Your task to perform on an android device: Search for seafood restaurants on Google Maps Image 0: 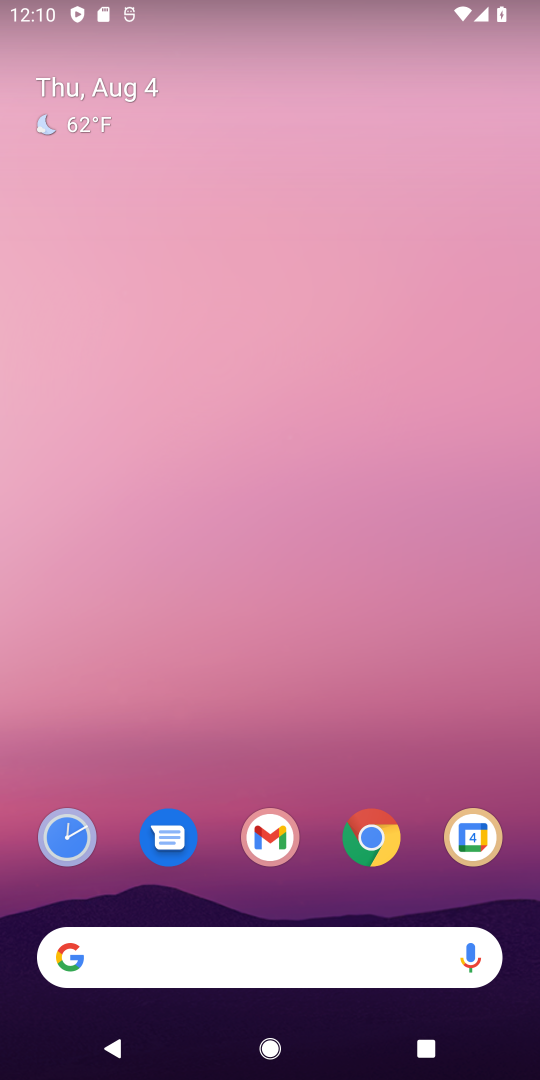
Step 0: drag from (339, 787) to (378, 0)
Your task to perform on an android device: Search for seafood restaurants on Google Maps Image 1: 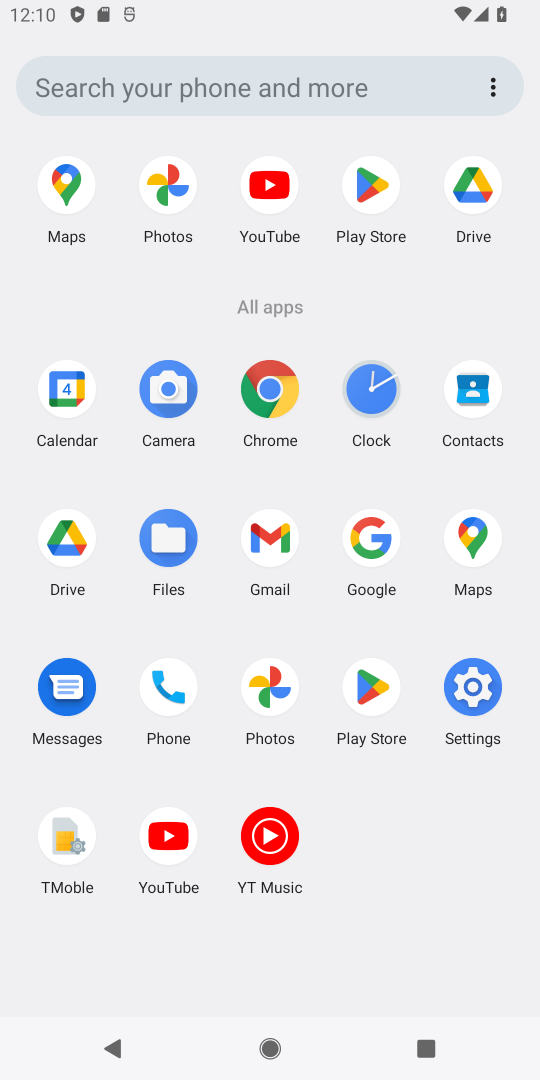
Step 1: click (63, 206)
Your task to perform on an android device: Search for seafood restaurants on Google Maps Image 2: 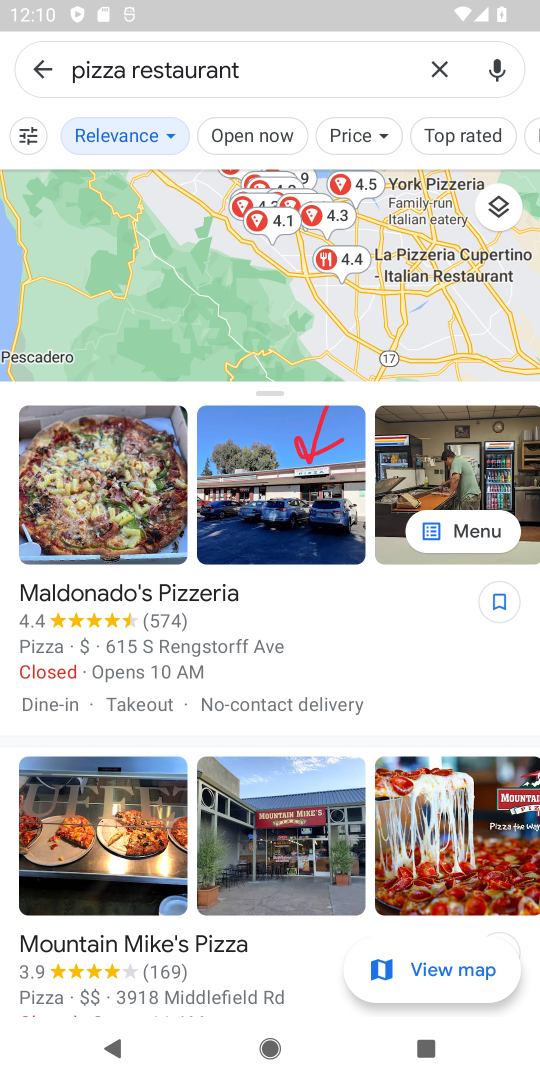
Step 2: click (434, 72)
Your task to perform on an android device: Search for seafood restaurants on Google Maps Image 3: 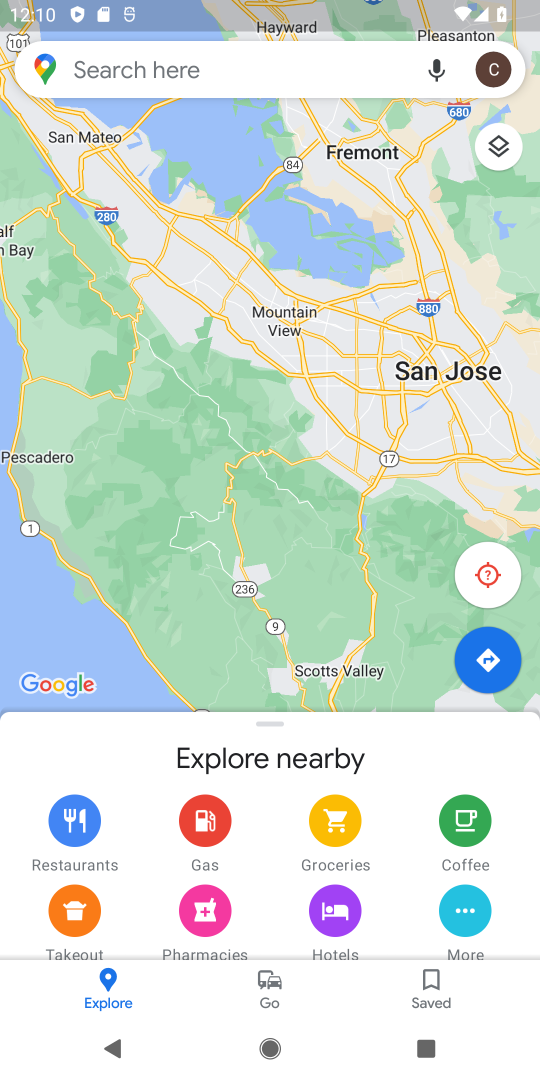
Step 3: click (298, 61)
Your task to perform on an android device: Search for seafood restaurants on Google Maps Image 4: 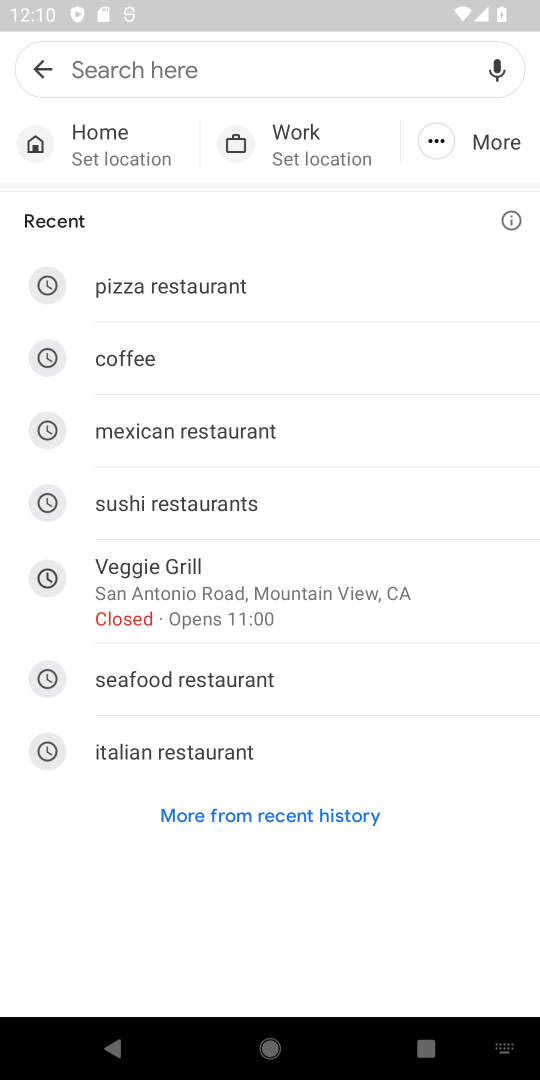
Step 4: type "seafood restaurants"
Your task to perform on an android device: Search for seafood restaurants on Google Maps Image 5: 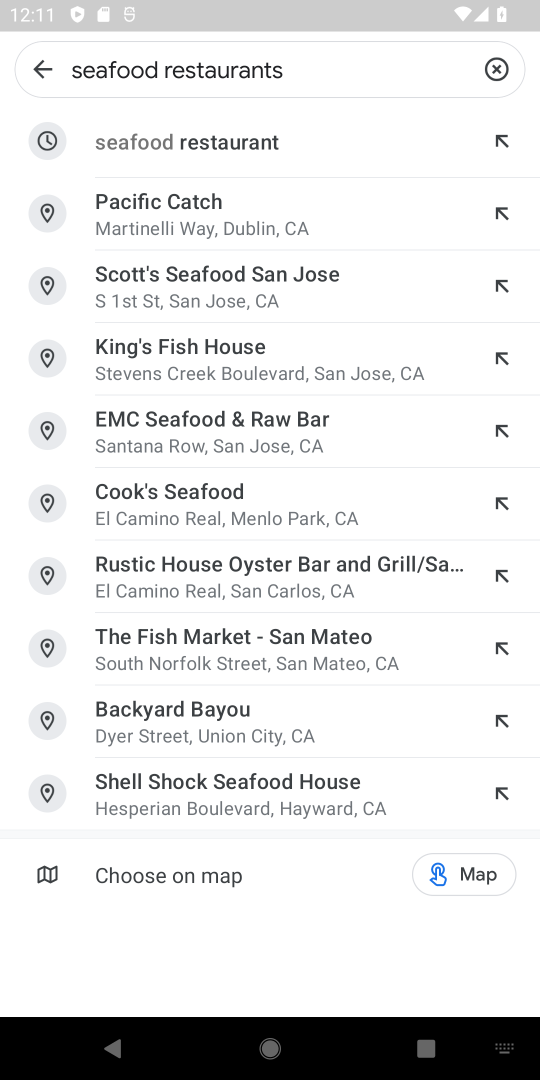
Step 5: click (322, 154)
Your task to perform on an android device: Search for seafood restaurants on Google Maps Image 6: 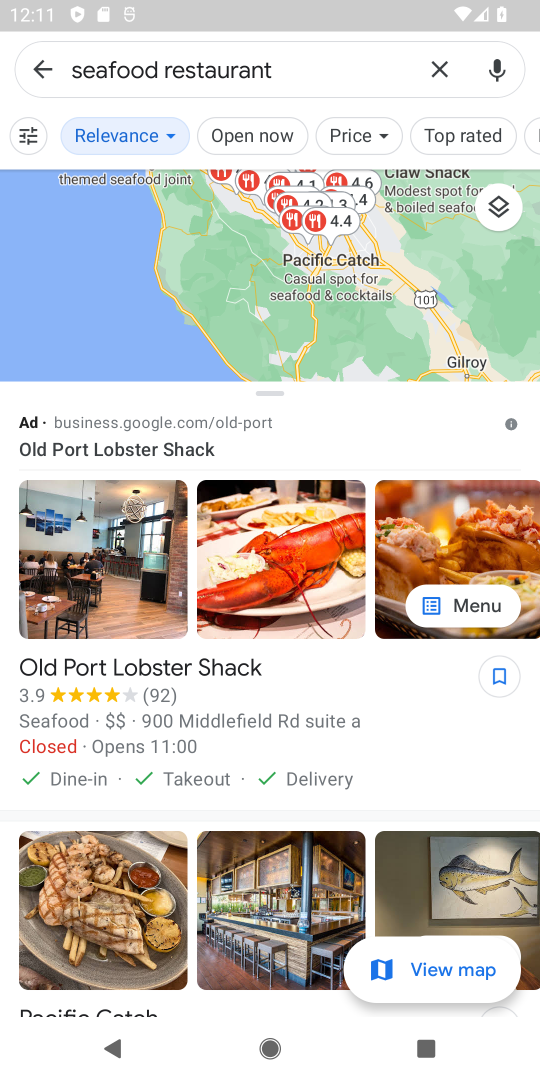
Step 6: task complete